Your task to perform on an android device: Open location settings Image 0: 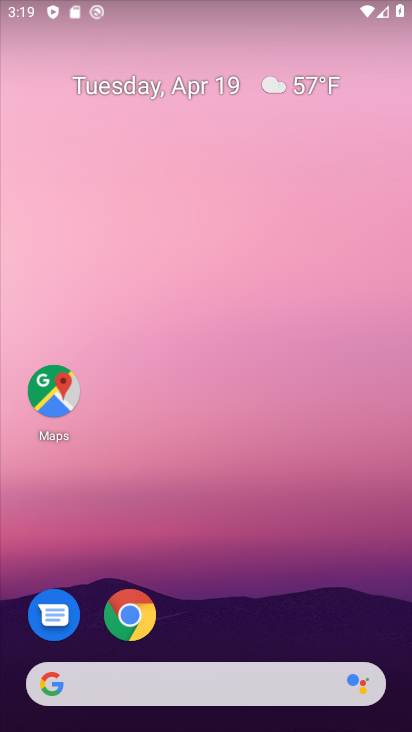
Step 0: drag from (232, 480) to (232, 193)
Your task to perform on an android device: Open location settings Image 1: 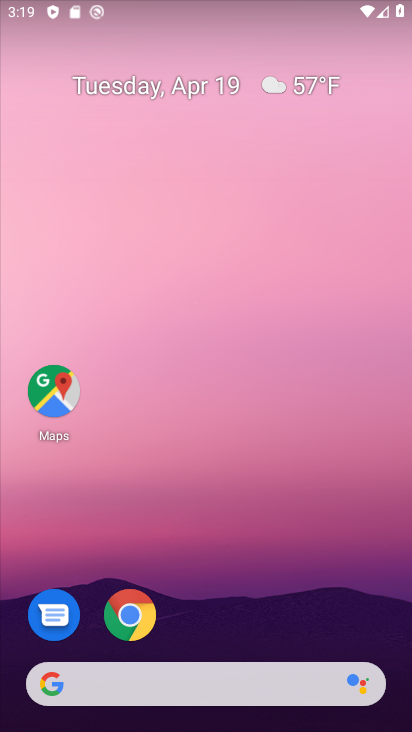
Step 1: drag from (220, 625) to (222, 176)
Your task to perform on an android device: Open location settings Image 2: 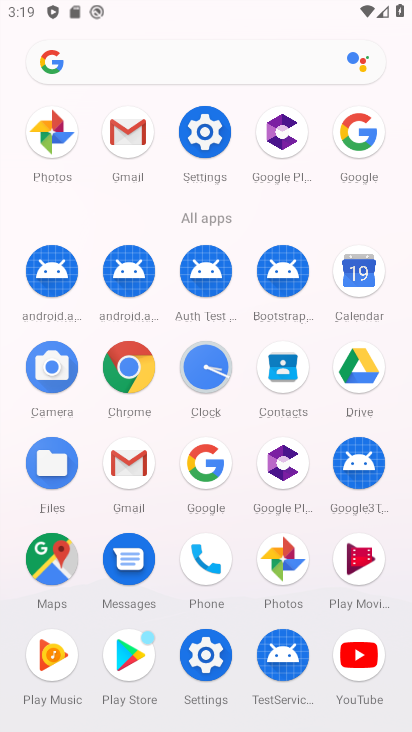
Step 2: click (208, 151)
Your task to perform on an android device: Open location settings Image 3: 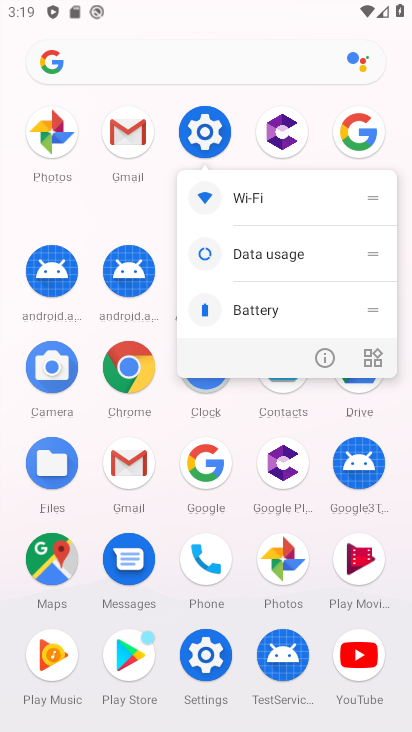
Step 3: click (208, 151)
Your task to perform on an android device: Open location settings Image 4: 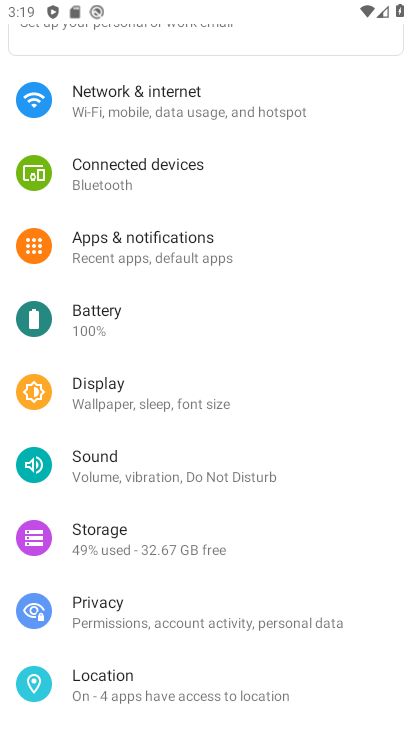
Step 4: click (145, 669)
Your task to perform on an android device: Open location settings Image 5: 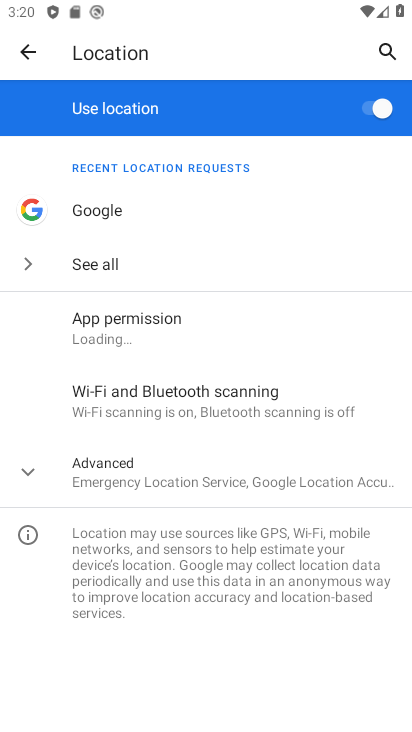
Step 5: click (149, 463)
Your task to perform on an android device: Open location settings Image 6: 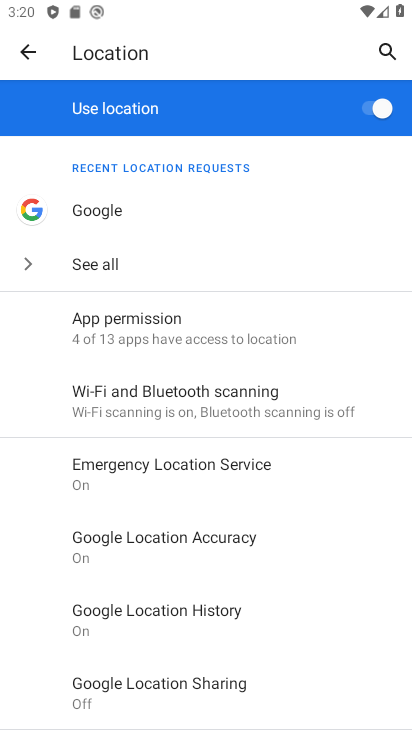
Step 6: task complete